Your task to perform on an android device: Go to settings Image 0: 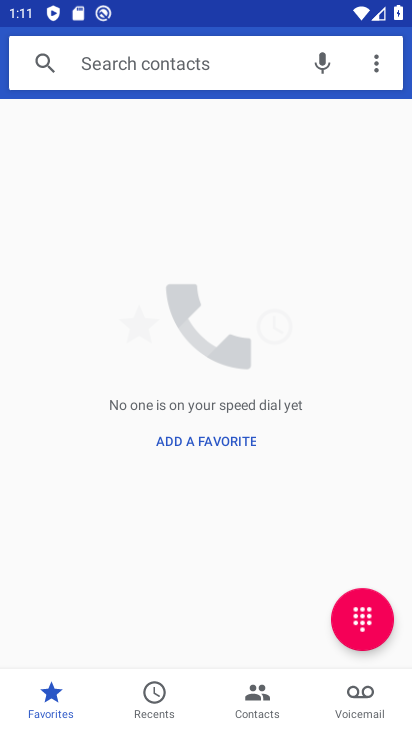
Step 0: press home button
Your task to perform on an android device: Go to settings Image 1: 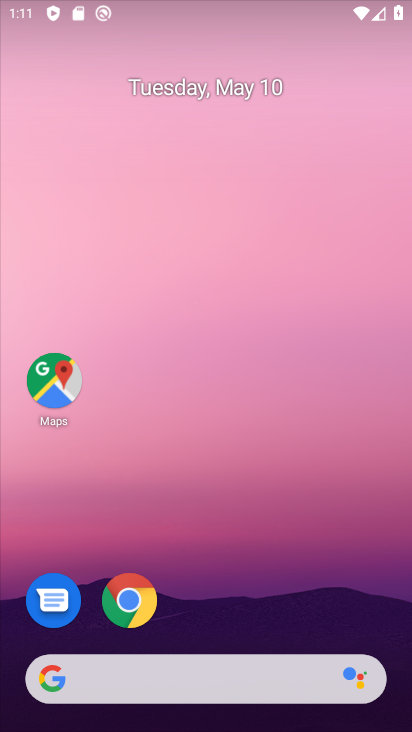
Step 1: drag from (241, 590) to (183, 1)
Your task to perform on an android device: Go to settings Image 2: 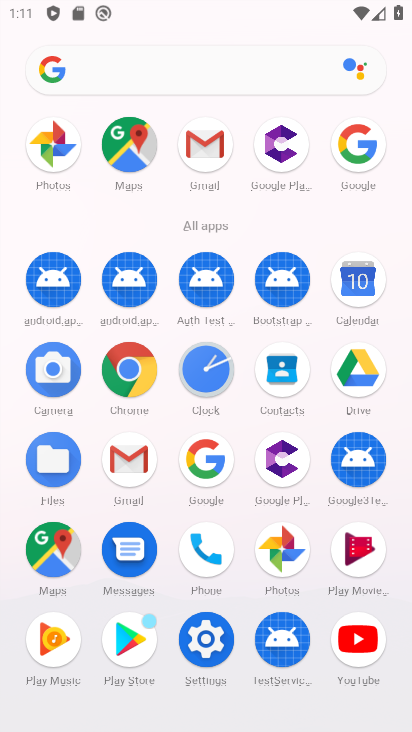
Step 2: click (214, 640)
Your task to perform on an android device: Go to settings Image 3: 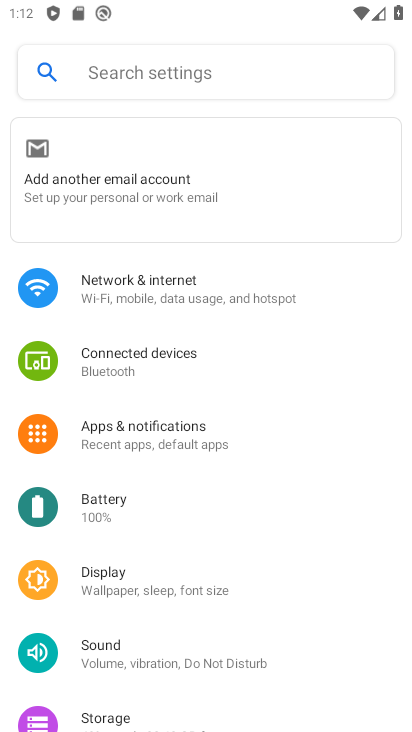
Step 3: task complete